Your task to perform on an android device: check android version Image 0: 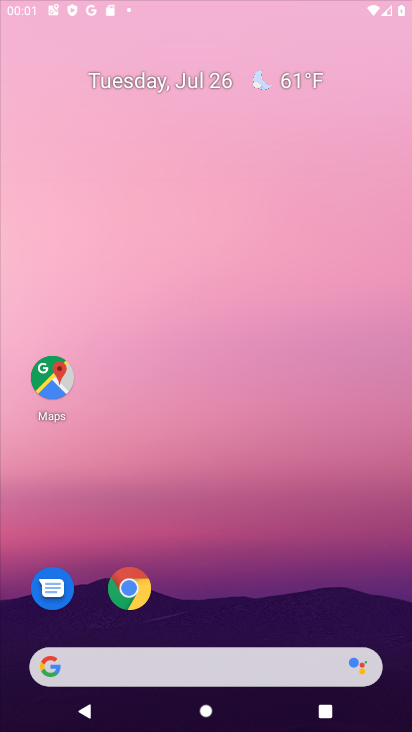
Step 0: press home button
Your task to perform on an android device: check android version Image 1: 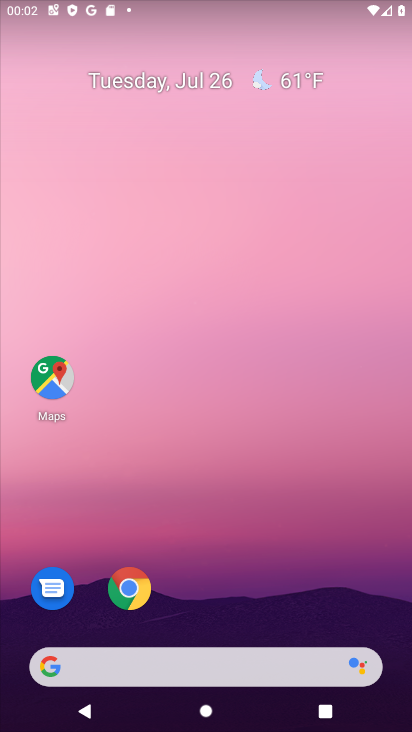
Step 1: drag from (211, 610) to (232, 41)
Your task to perform on an android device: check android version Image 2: 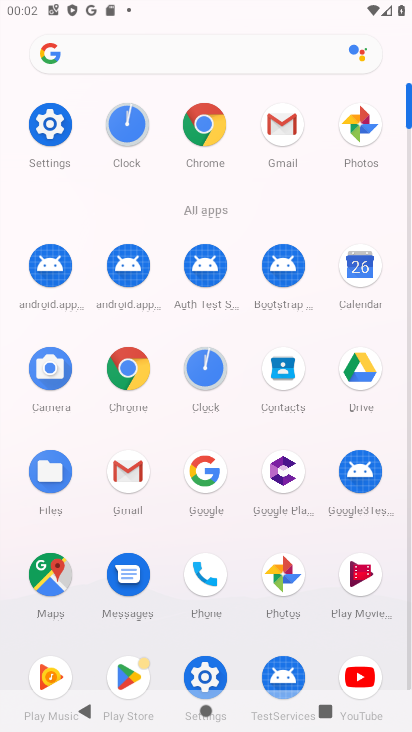
Step 2: click (48, 121)
Your task to perform on an android device: check android version Image 3: 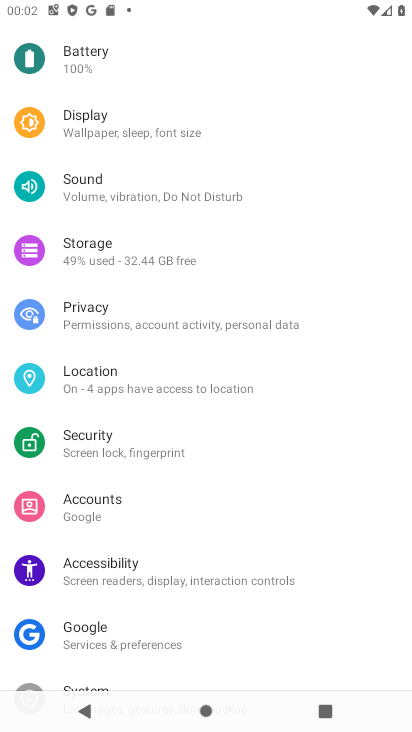
Step 3: drag from (195, 629) to (230, 19)
Your task to perform on an android device: check android version Image 4: 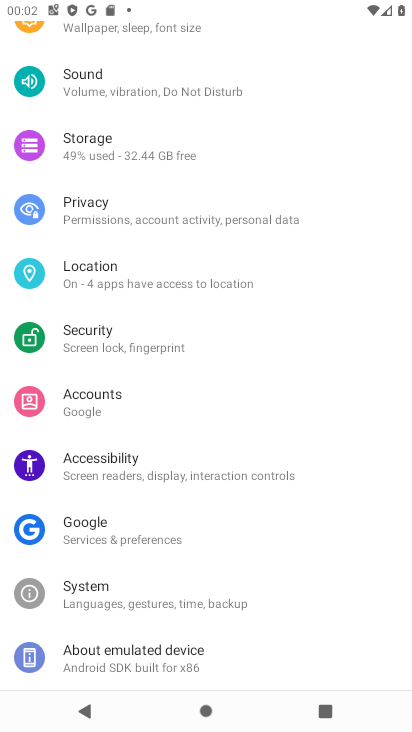
Step 4: click (218, 653)
Your task to perform on an android device: check android version Image 5: 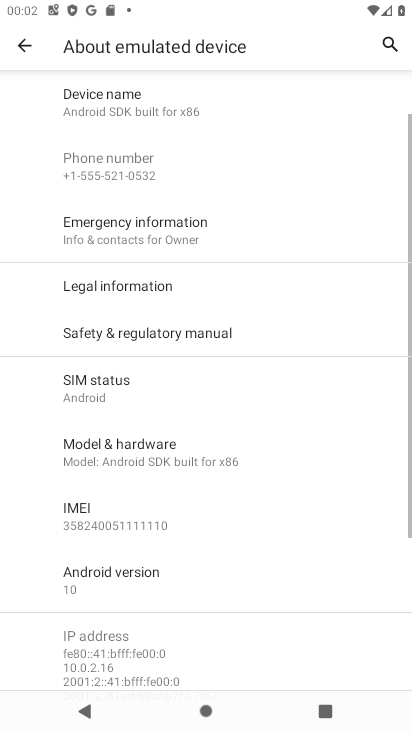
Step 5: click (116, 583)
Your task to perform on an android device: check android version Image 6: 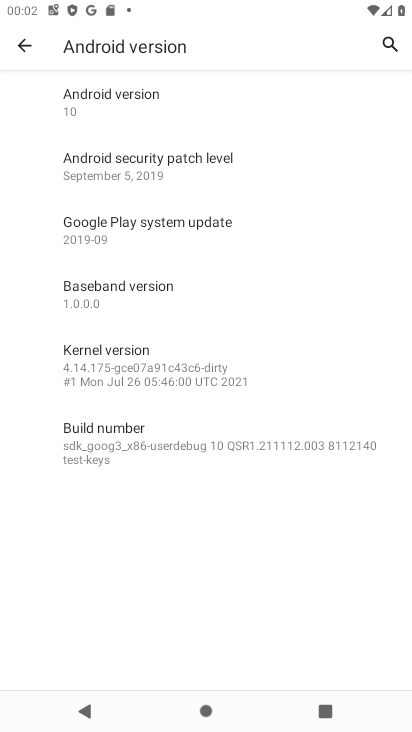
Step 6: task complete